Your task to perform on an android device: Go to Wikipedia Image 0: 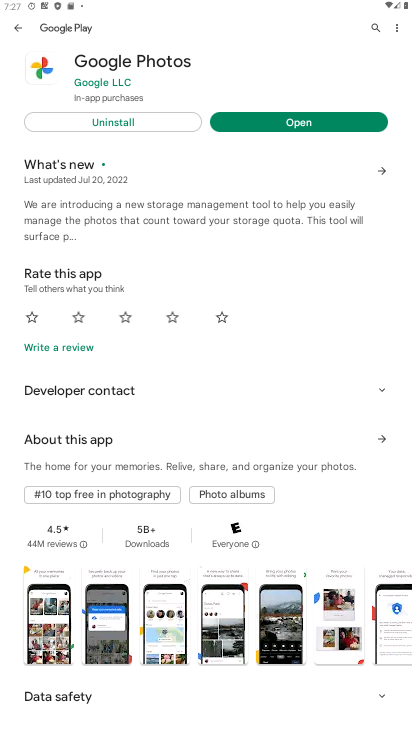
Step 0: press home button
Your task to perform on an android device: Go to Wikipedia Image 1: 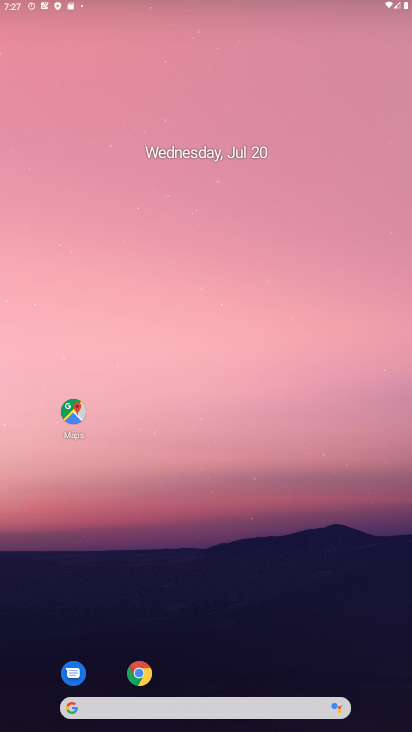
Step 1: drag from (381, 650) to (204, 26)
Your task to perform on an android device: Go to Wikipedia Image 2: 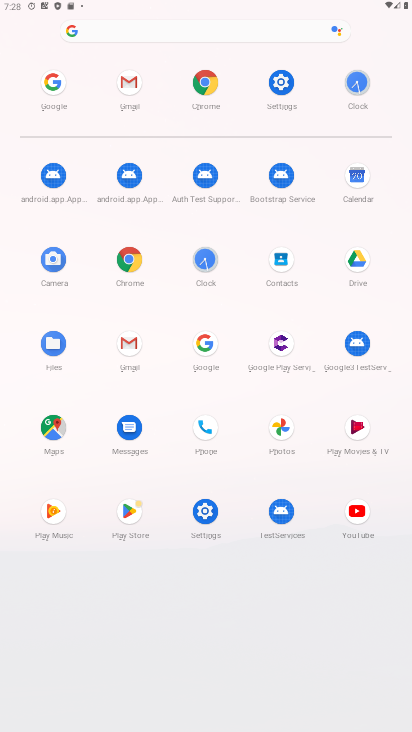
Step 2: click (205, 344)
Your task to perform on an android device: Go to Wikipedia Image 3: 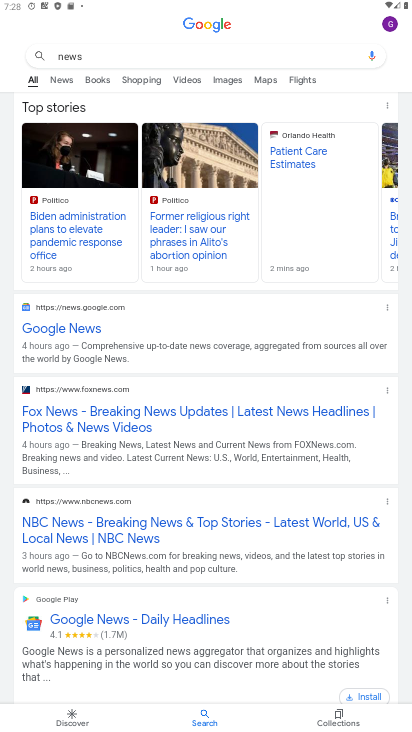
Step 3: click (183, 53)
Your task to perform on an android device: Go to Wikipedia Image 4: 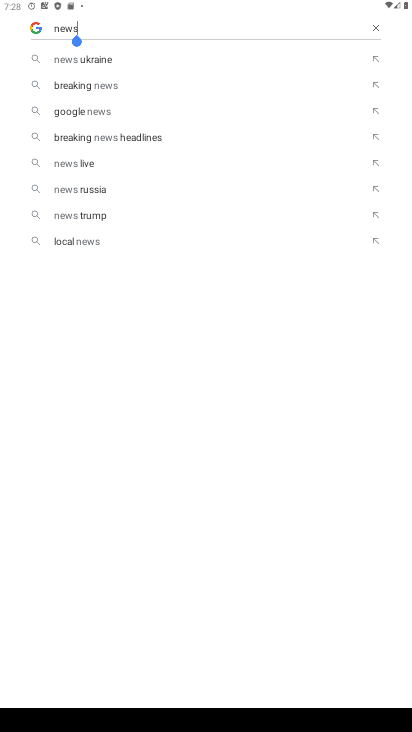
Step 4: click (376, 28)
Your task to perform on an android device: Go to Wikipedia Image 5: 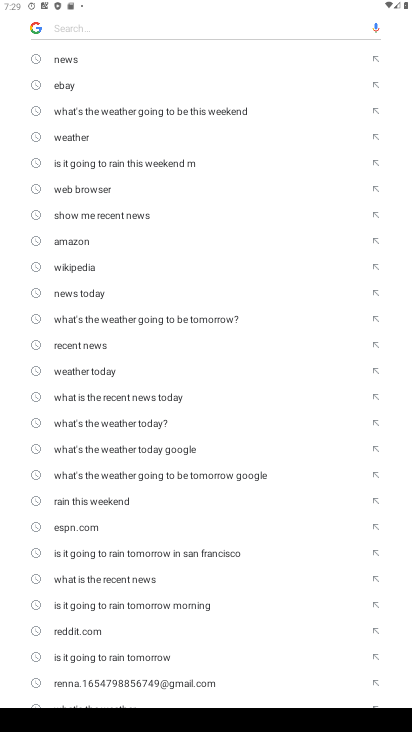
Step 5: type "Wikipedia"
Your task to perform on an android device: Go to Wikipedia Image 6: 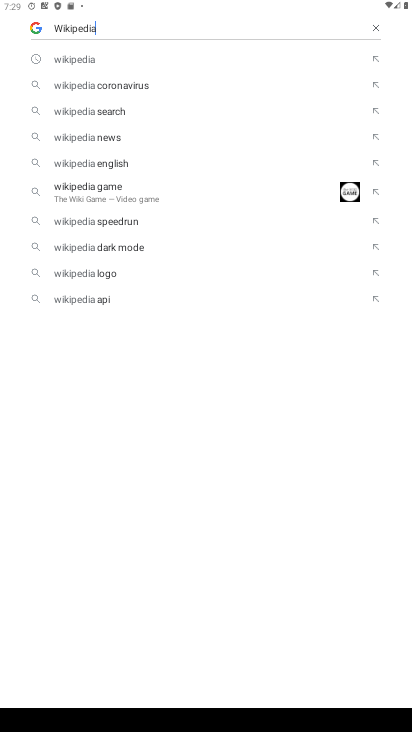
Step 6: click (110, 57)
Your task to perform on an android device: Go to Wikipedia Image 7: 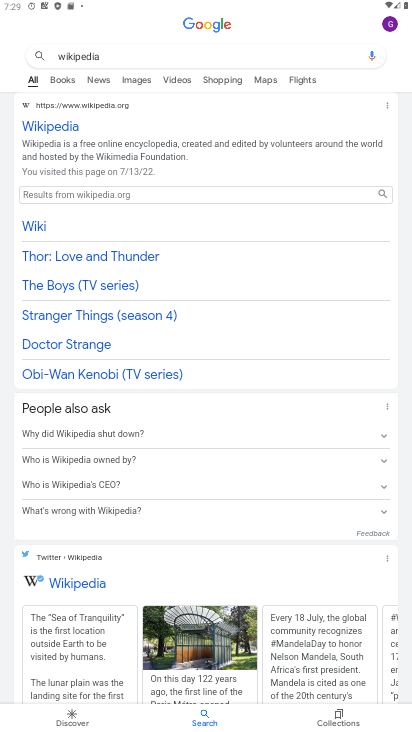
Step 7: task complete